Your task to perform on an android device: Open Yahoo.com Image 0: 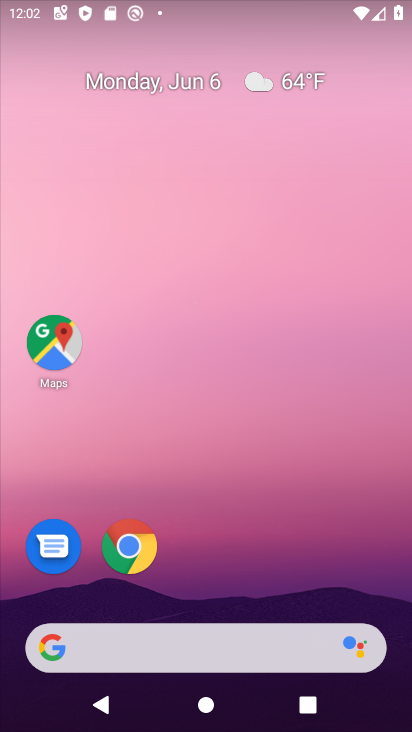
Step 0: click (138, 541)
Your task to perform on an android device: Open Yahoo.com Image 1: 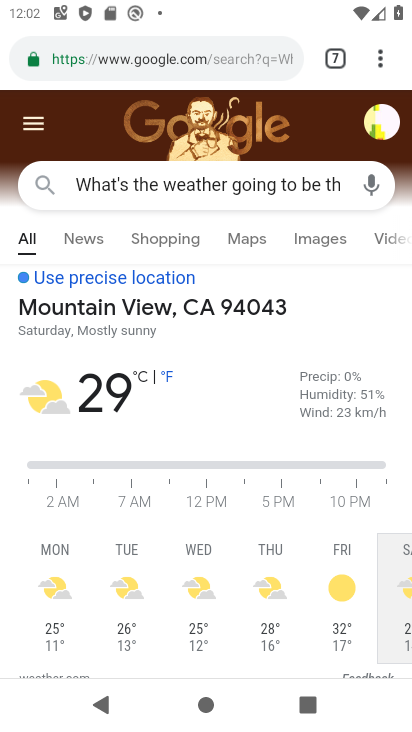
Step 1: click (370, 53)
Your task to perform on an android device: Open Yahoo.com Image 2: 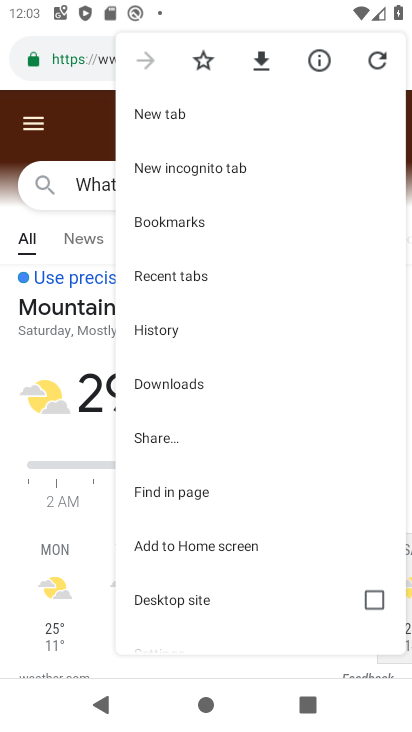
Step 2: click (157, 106)
Your task to perform on an android device: Open Yahoo.com Image 3: 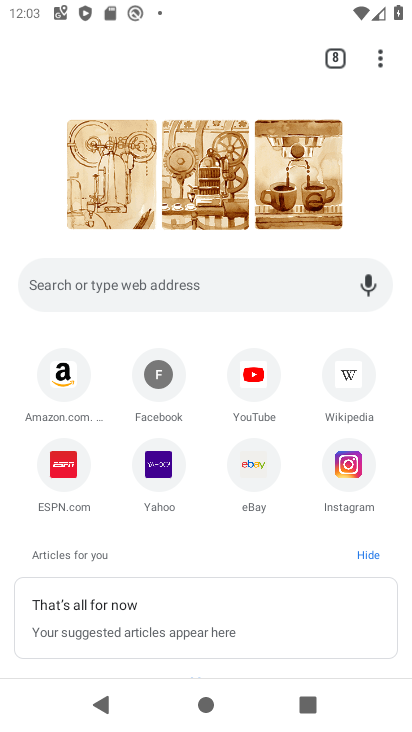
Step 3: click (157, 464)
Your task to perform on an android device: Open Yahoo.com Image 4: 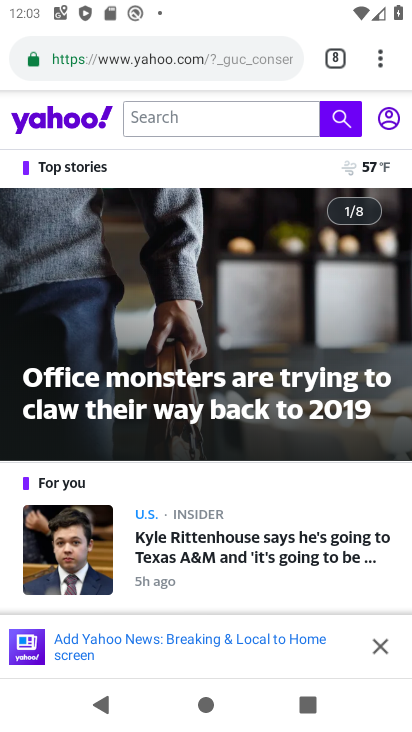
Step 4: task complete